Your task to perform on an android device: Open maps Image 0: 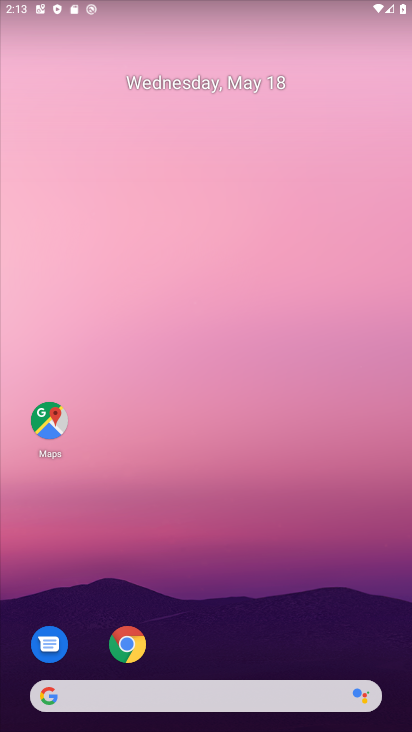
Step 0: click (39, 434)
Your task to perform on an android device: Open maps Image 1: 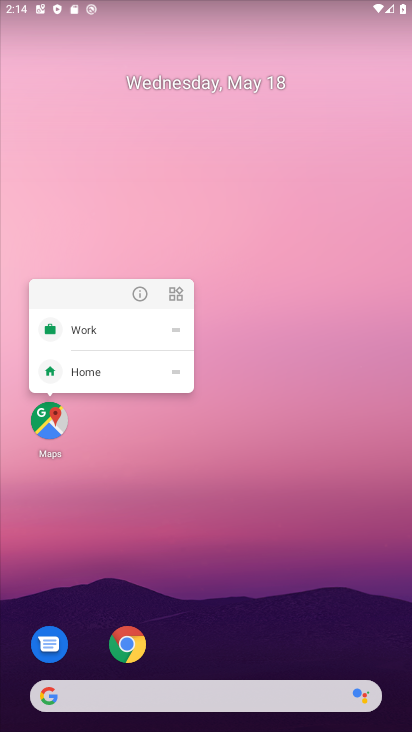
Step 1: click (48, 420)
Your task to perform on an android device: Open maps Image 2: 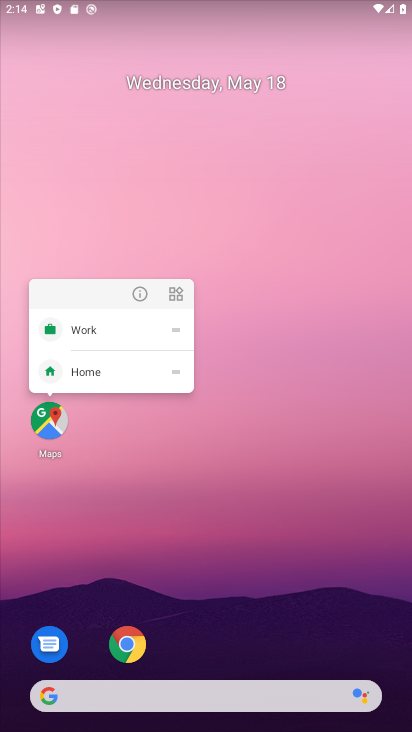
Step 2: click (48, 420)
Your task to perform on an android device: Open maps Image 3: 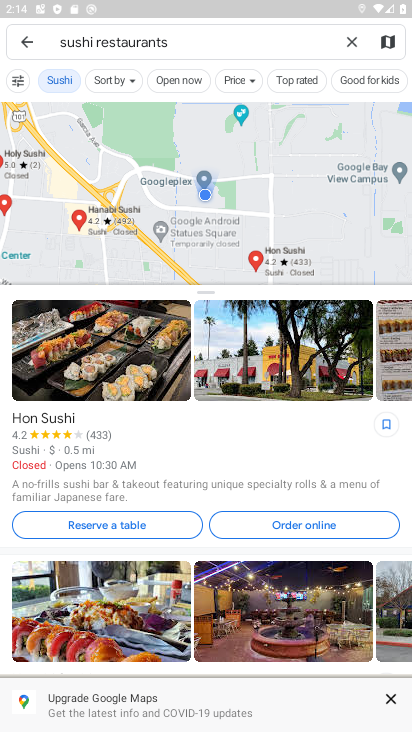
Step 3: task complete